Your task to perform on an android device: Go to display settings Image 0: 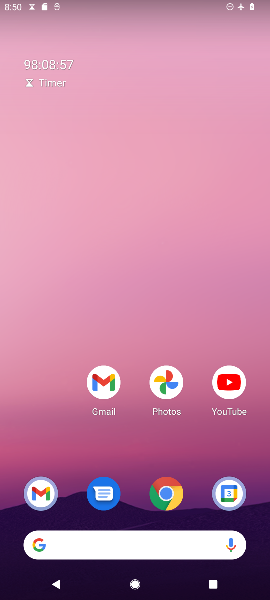
Step 0: drag from (126, 500) to (152, 183)
Your task to perform on an android device: Go to display settings Image 1: 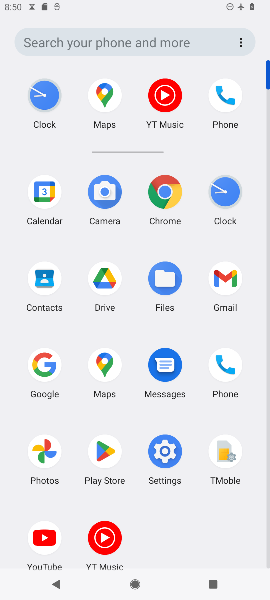
Step 1: click (167, 444)
Your task to perform on an android device: Go to display settings Image 2: 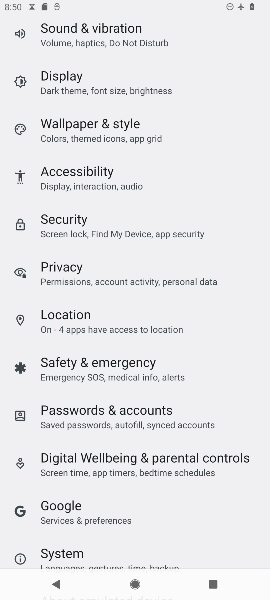
Step 2: click (76, 75)
Your task to perform on an android device: Go to display settings Image 3: 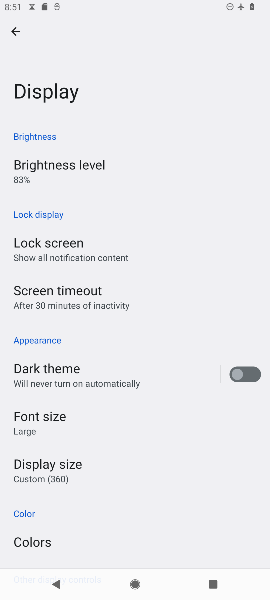
Step 3: task complete